Your task to perform on an android device: Open display settings Image 0: 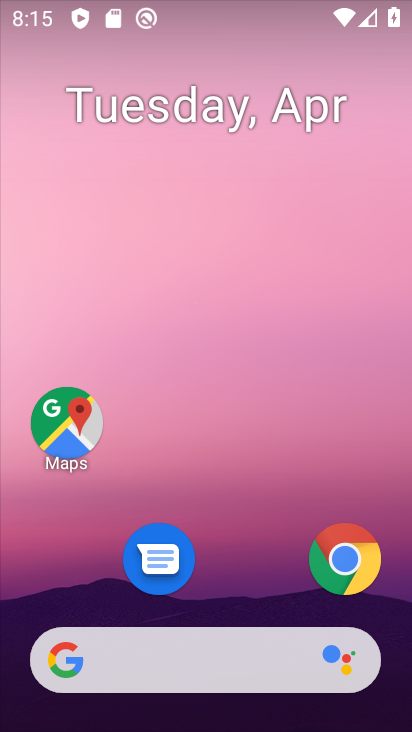
Step 0: drag from (222, 703) to (215, 104)
Your task to perform on an android device: Open display settings Image 1: 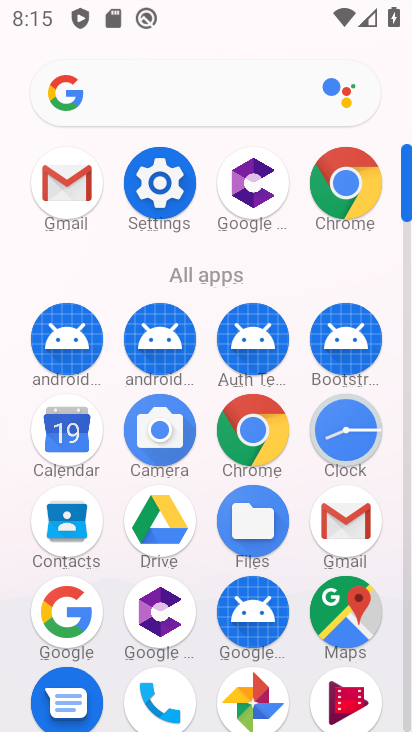
Step 1: click (156, 200)
Your task to perform on an android device: Open display settings Image 2: 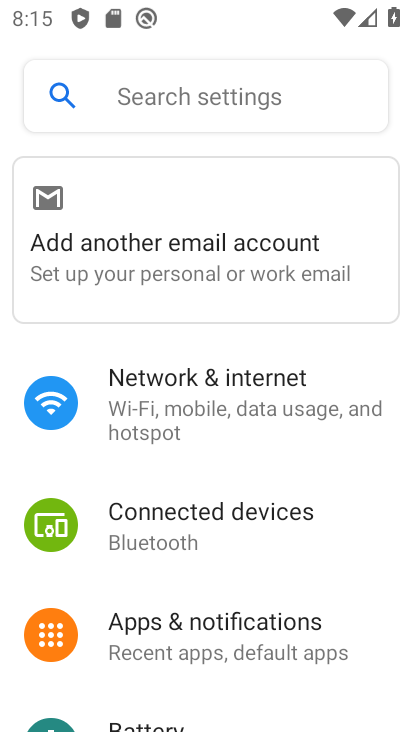
Step 2: click (154, 90)
Your task to perform on an android device: Open display settings Image 3: 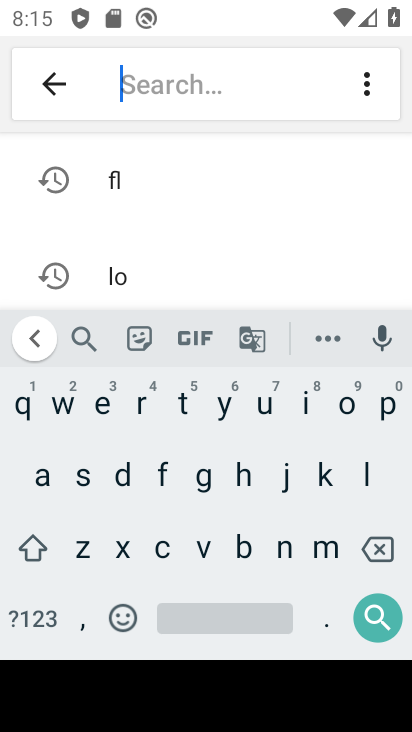
Step 3: click (121, 478)
Your task to perform on an android device: Open display settings Image 4: 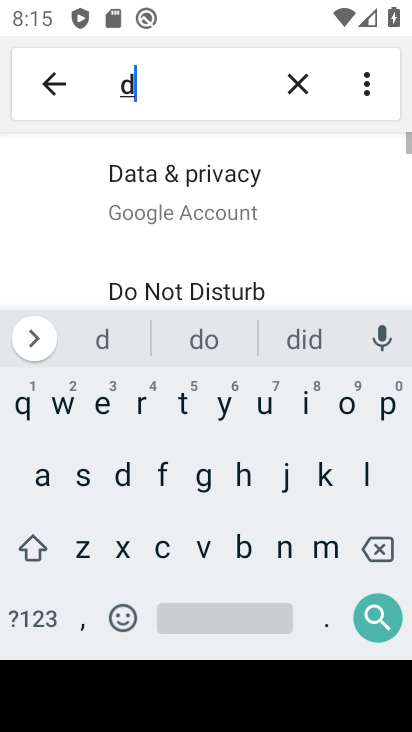
Step 4: click (305, 413)
Your task to perform on an android device: Open display settings Image 5: 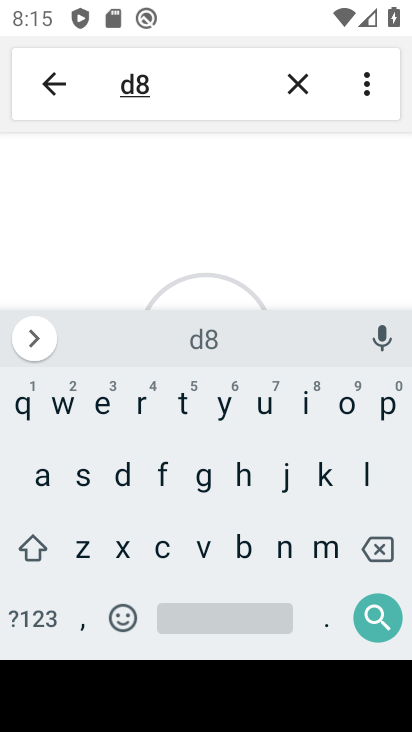
Step 5: click (385, 551)
Your task to perform on an android device: Open display settings Image 6: 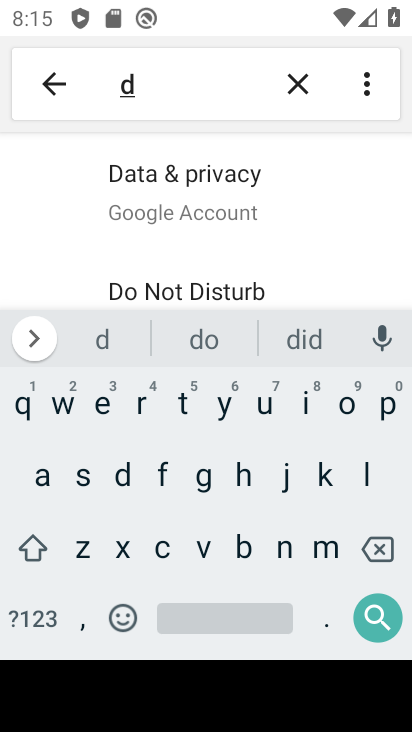
Step 6: click (301, 408)
Your task to perform on an android device: Open display settings Image 7: 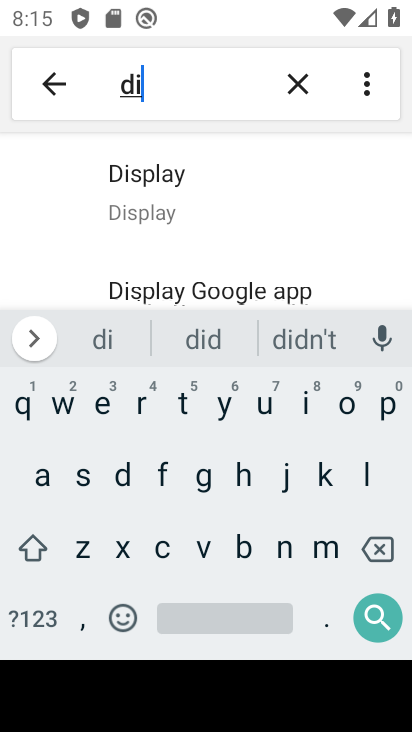
Step 7: click (108, 207)
Your task to perform on an android device: Open display settings Image 8: 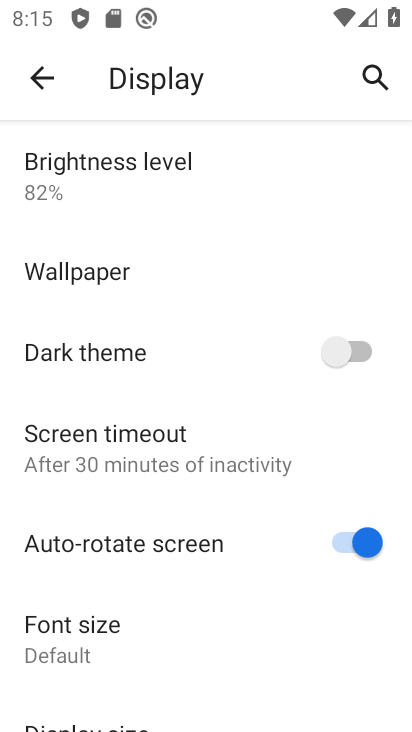
Step 8: task complete